Your task to perform on an android device: Open Google Maps and go to "Timeline" Image 0: 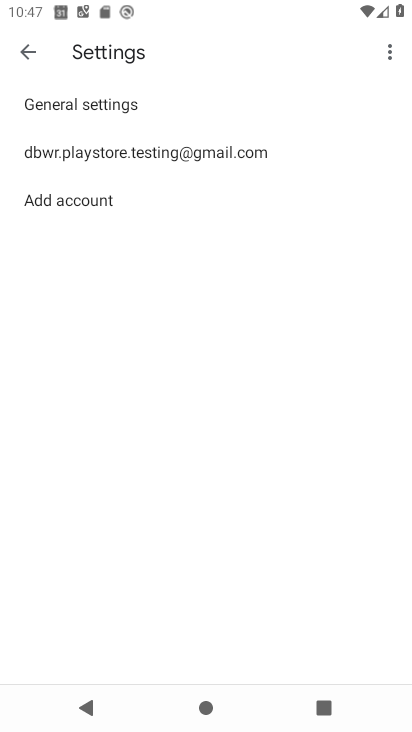
Step 0: press home button
Your task to perform on an android device: Open Google Maps and go to "Timeline" Image 1: 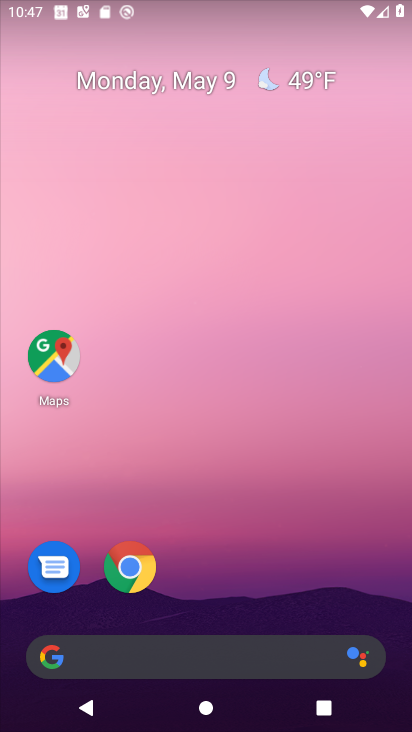
Step 1: click (41, 353)
Your task to perform on an android device: Open Google Maps and go to "Timeline" Image 2: 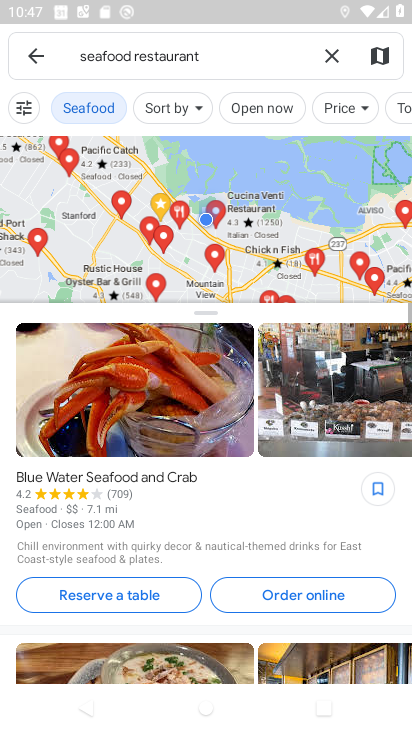
Step 2: click (342, 54)
Your task to perform on an android device: Open Google Maps and go to "Timeline" Image 3: 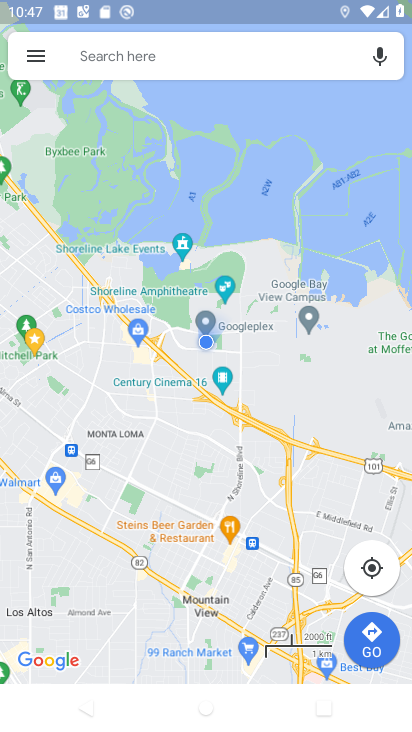
Step 3: click (23, 55)
Your task to perform on an android device: Open Google Maps and go to "Timeline" Image 4: 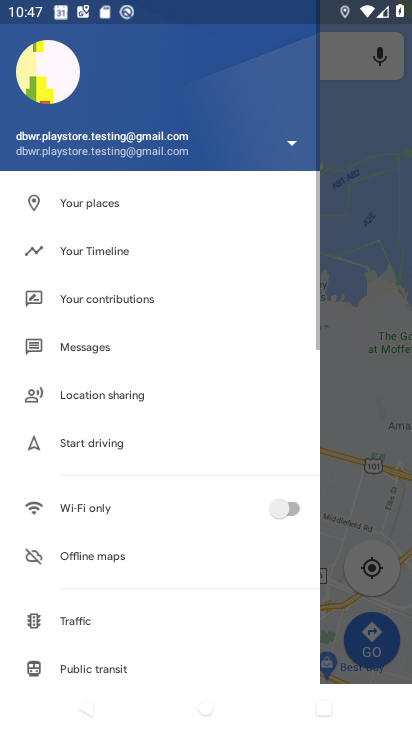
Step 4: click (73, 249)
Your task to perform on an android device: Open Google Maps and go to "Timeline" Image 5: 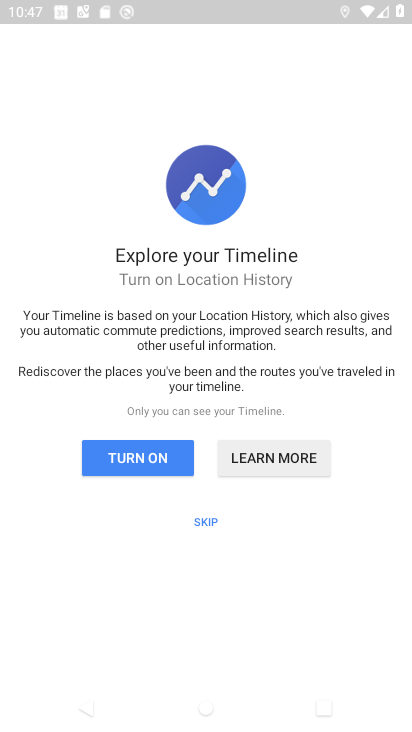
Step 5: click (156, 459)
Your task to perform on an android device: Open Google Maps and go to "Timeline" Image 6: 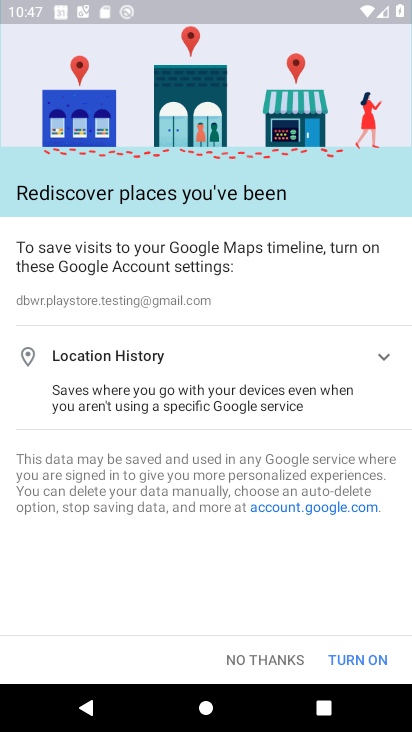
Step 6: click (346, 659)
Your task to perform on an android device: Open Google Maps and go to "Timeline" Image 7: 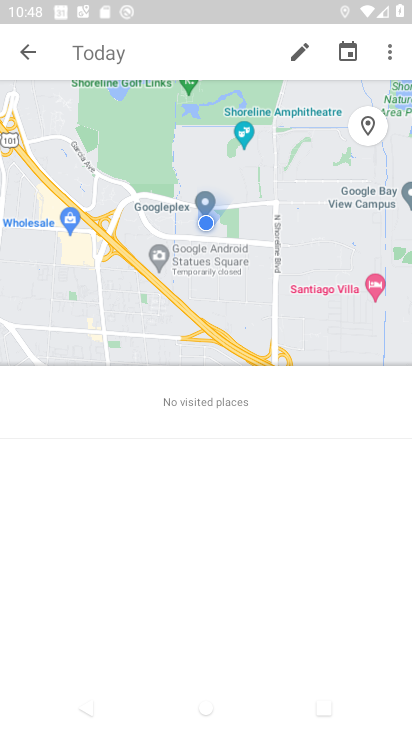
Step 7: task complete